Your task to perform on an android device: Clear the cart on costco.com. Add usb-a to usb-b to the cart on costco.com Image 0: 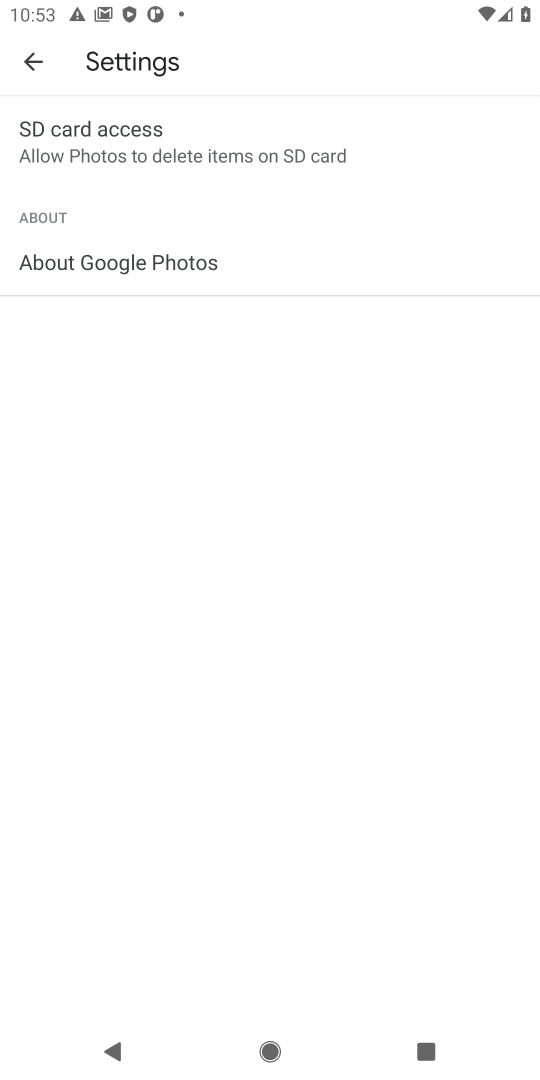
Step 0: press home button
Your task to perform on an android device: Clear the cart on costco.com. Add usb-a to usb-b to the cart on costco.com Image 1: 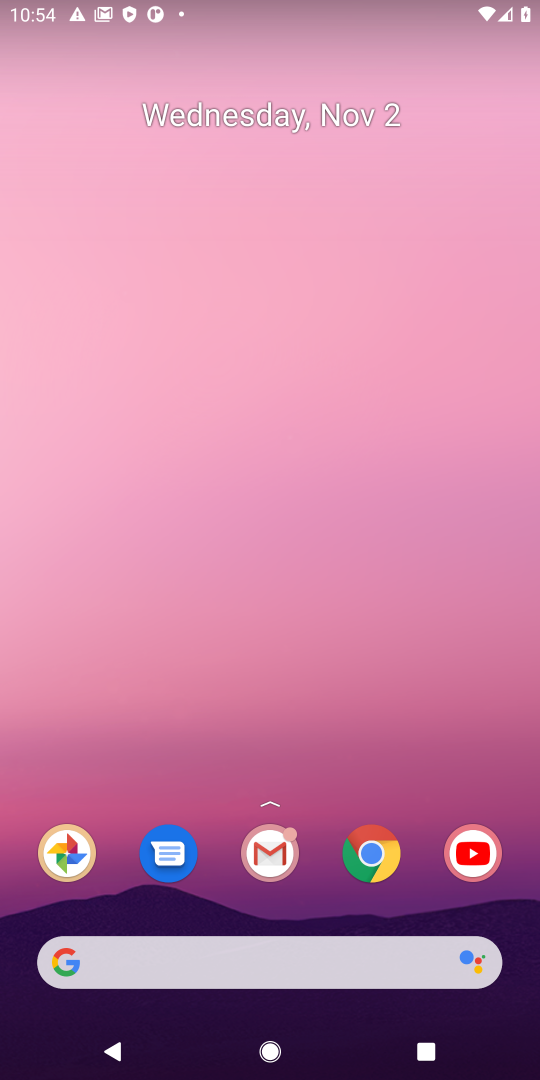
Step 1: click (381, 851)
Your task to perform on an android device: Clear the cart on costco.com. Add usb-a to usb-b to the cart on costco.com Image 2: 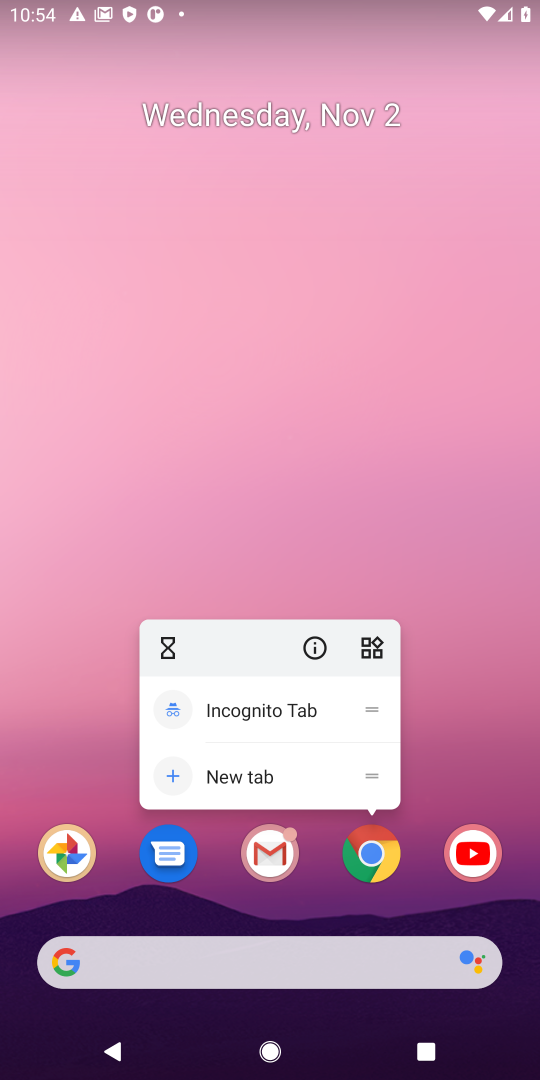
Step 2: click (377, 855)
Your task to perform on an android device: Clear the cart on costco.com. Add usb-a to usb-b to the cart on costco.com Image 3: 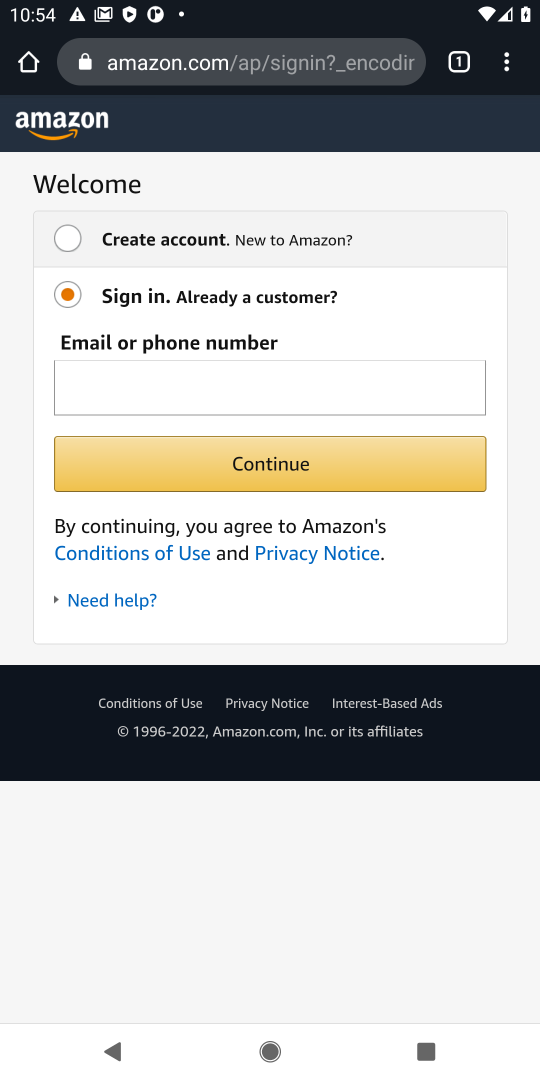
Step 3: click (267, 61)
Your task to perform on an android device: Clear the cart on costco.com. Add usb-a to usb-b to the cart on costco.com Image 4: 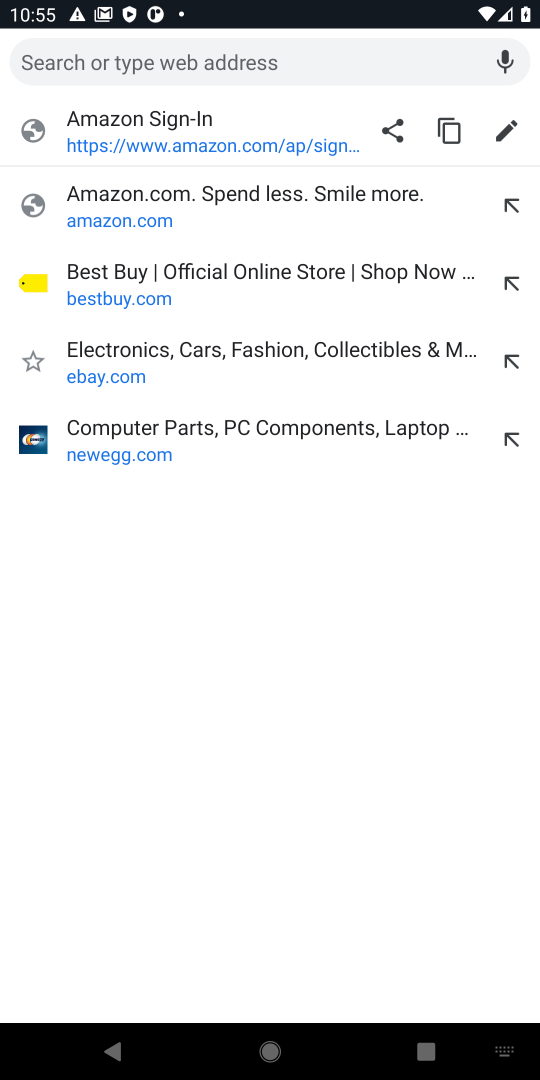
Step 4: type "costco.com"
Your task to perform on an android device: Clear the cart on costco.com. Add usb-a to usb-b to the cart on costco.com Image 5: 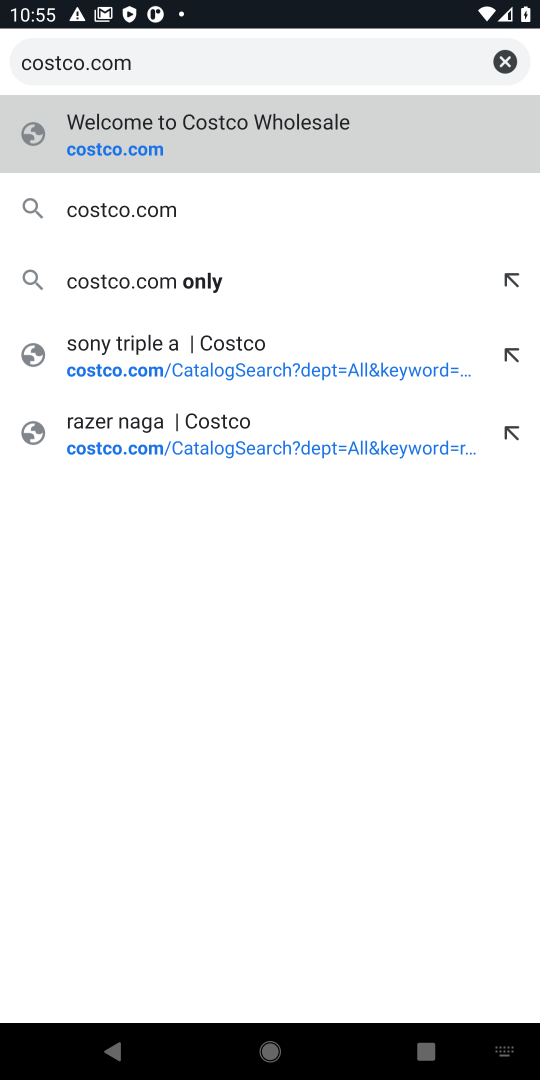
Step 5: press enter
Your task to perform on an android device: Clear the cart on costco.com. Add usb-a to usb-b to the cart on costco.com Image 6: 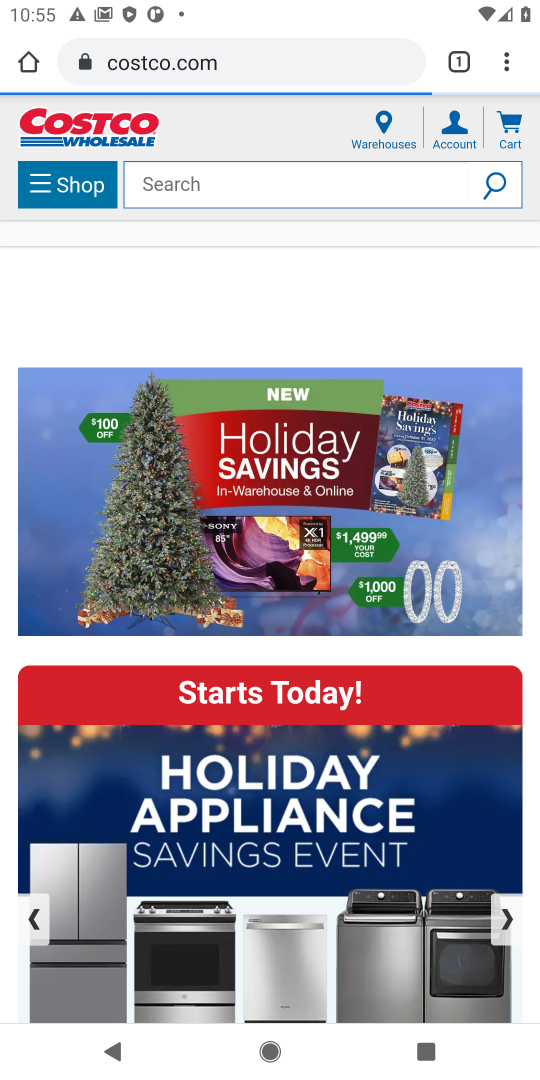
Step 6: click (263, 180)
Your task to perform on an android device: Clear the cart on costco.com. Add usb-a to usb-b to the cart on costco.com Image 7: 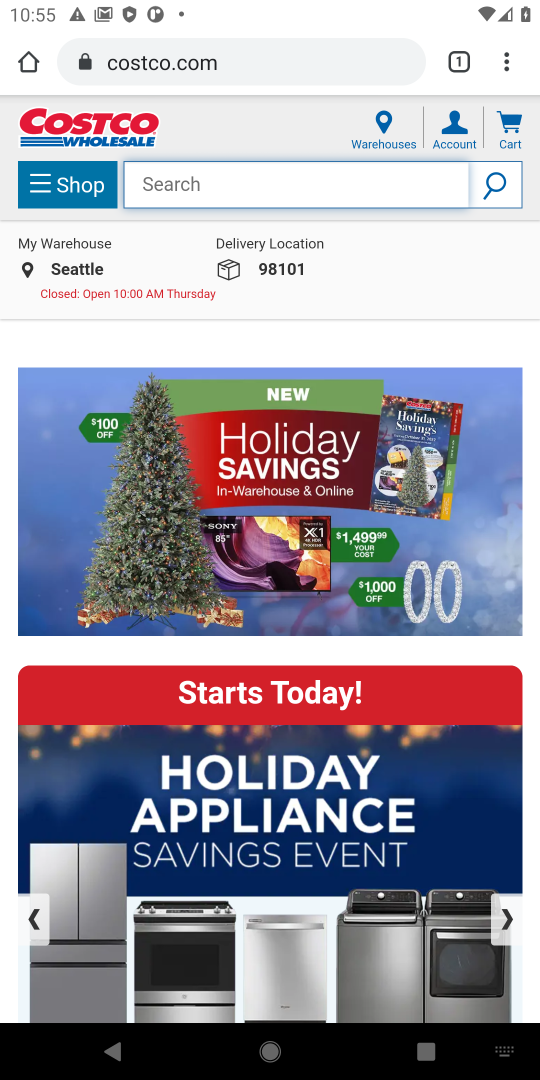
Step 7: type "usb-a to usb-b"
Your task to perform on an android device: Clear the cart on costco.com. Add usb-a to usb-b to the cart on costco.com Image 8: 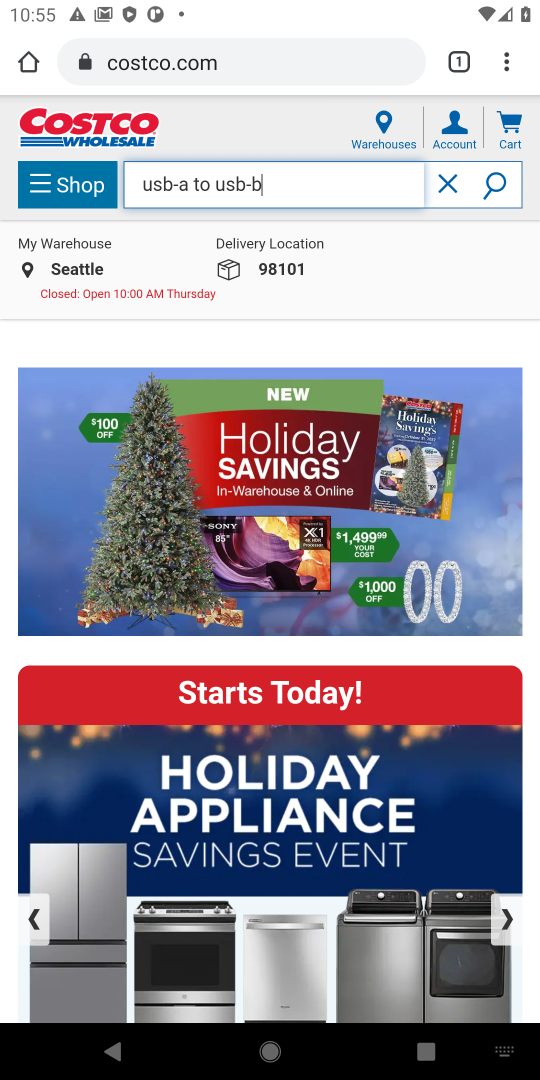
Step 8: press enter
Your task to perform on an android device: Clear the cart on costco.com. Add usb-a to usb-b to the cart on costco.com Image 9: 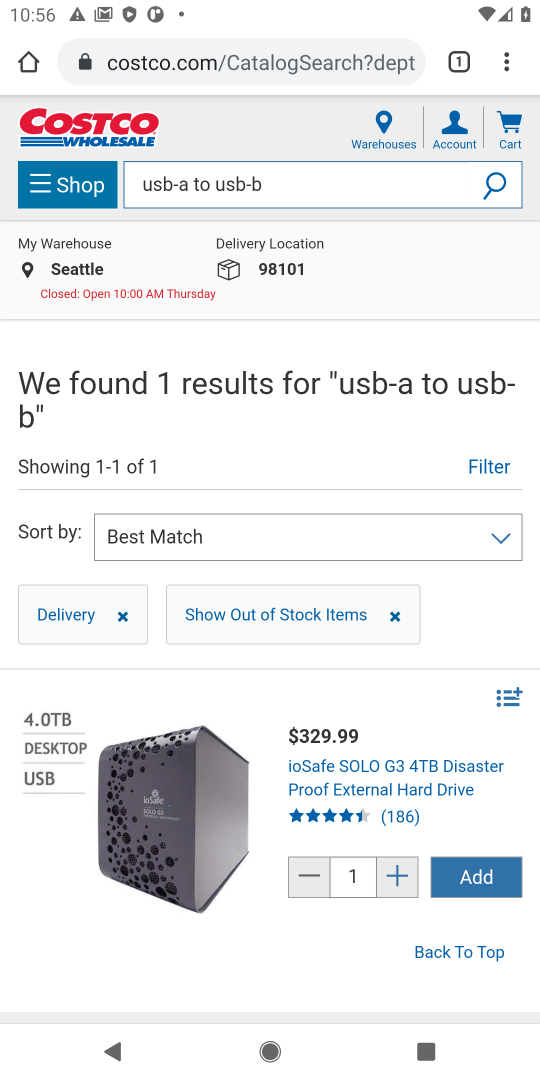
Step 9: task complete